Your task to perform on an android device: open wifi settings Image 0: 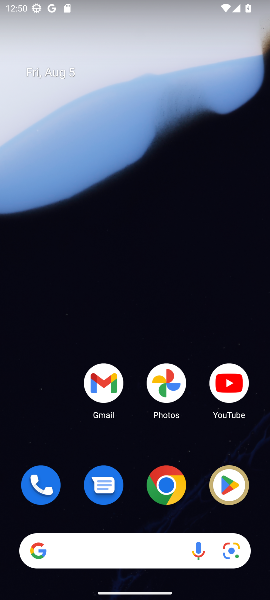
Step 0: drag from (64, 434) to (123, 84)
Your task to perform on an android device: open wifi settings Image 1: 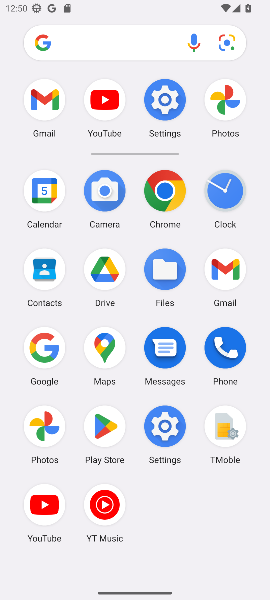
Step 1: click (160, 101)
Your task to perform on an android device: open wifi settings Image 2: 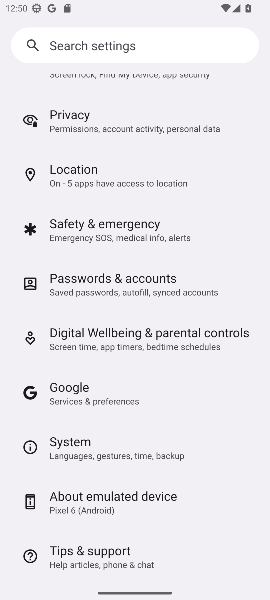
Step 2: drag from (132, 157) to (112, 455)
Your task to perform on an android device: open wifi settings Image 3: 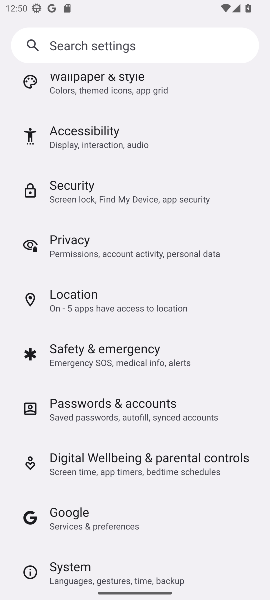
Step 3: drag from (193, 149) to (180, 415)
Your task to perform on an android device: open wifi settings Image 4: 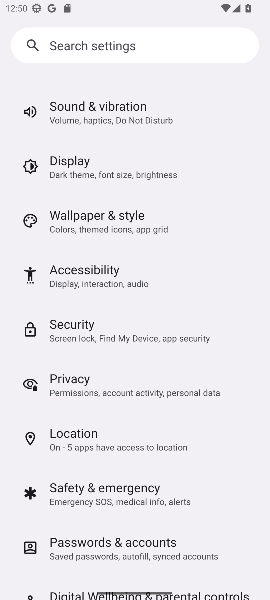
Step 4: drag from (185, 112) to (181, 580)
Your task to perform on an android device: open wifi settings Image 5: 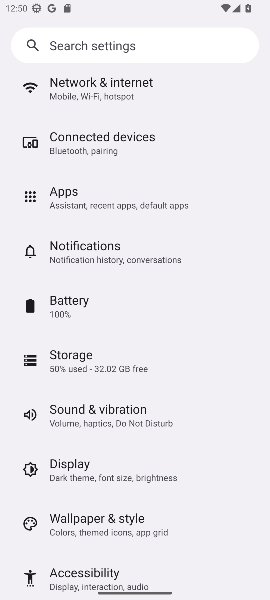
Step 5: drag from (180, 116) to (156, 484)
Your task to perform on an android device: open wifi settings Image 6: 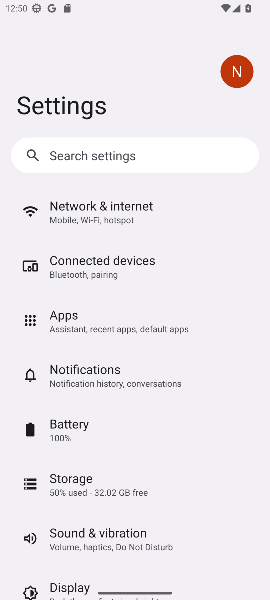
Step 6: click (97, 200)
Your task to perform on an android device: open wifi settings Image 7: 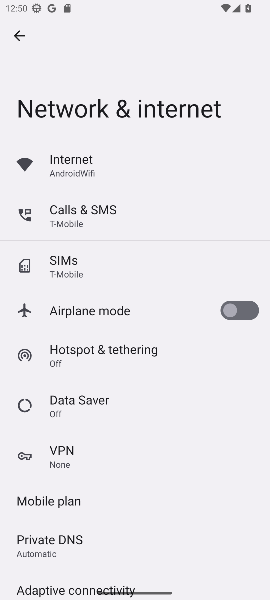
Step 7: click (70, 160)
Your task to perform on an android device: open wifi settings Image 8: 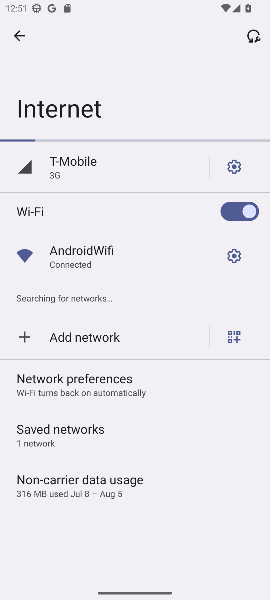
Step 8: click (35, 208)
Your task to perform on an android device: open wifi settings Image 9: 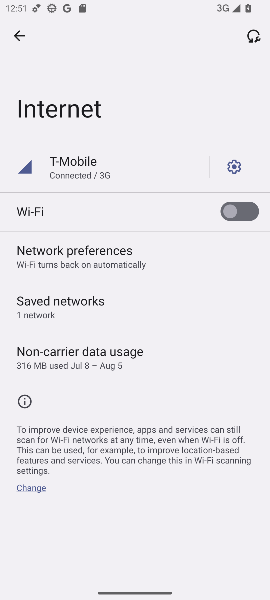
Step 9: task complete